Your task to perform on an android device: Clear the cart on walmart.com. Search for "logitech g502" on walmart.com, select the first entry, and add it to the cart. Image 0: 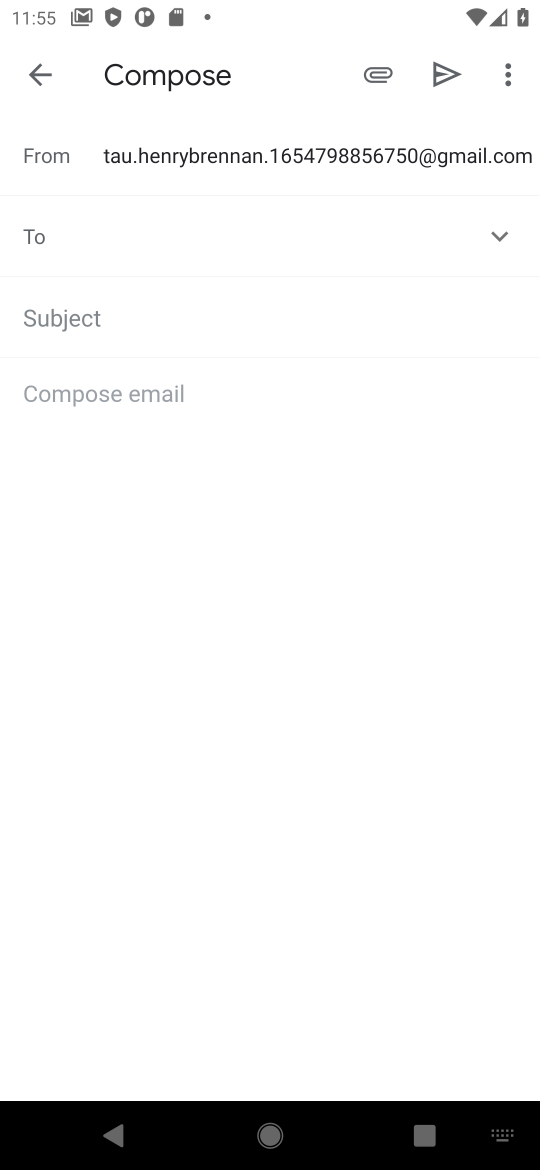
Step 0: task complete